Your task to perform on an android device: Open display settings Image 0: 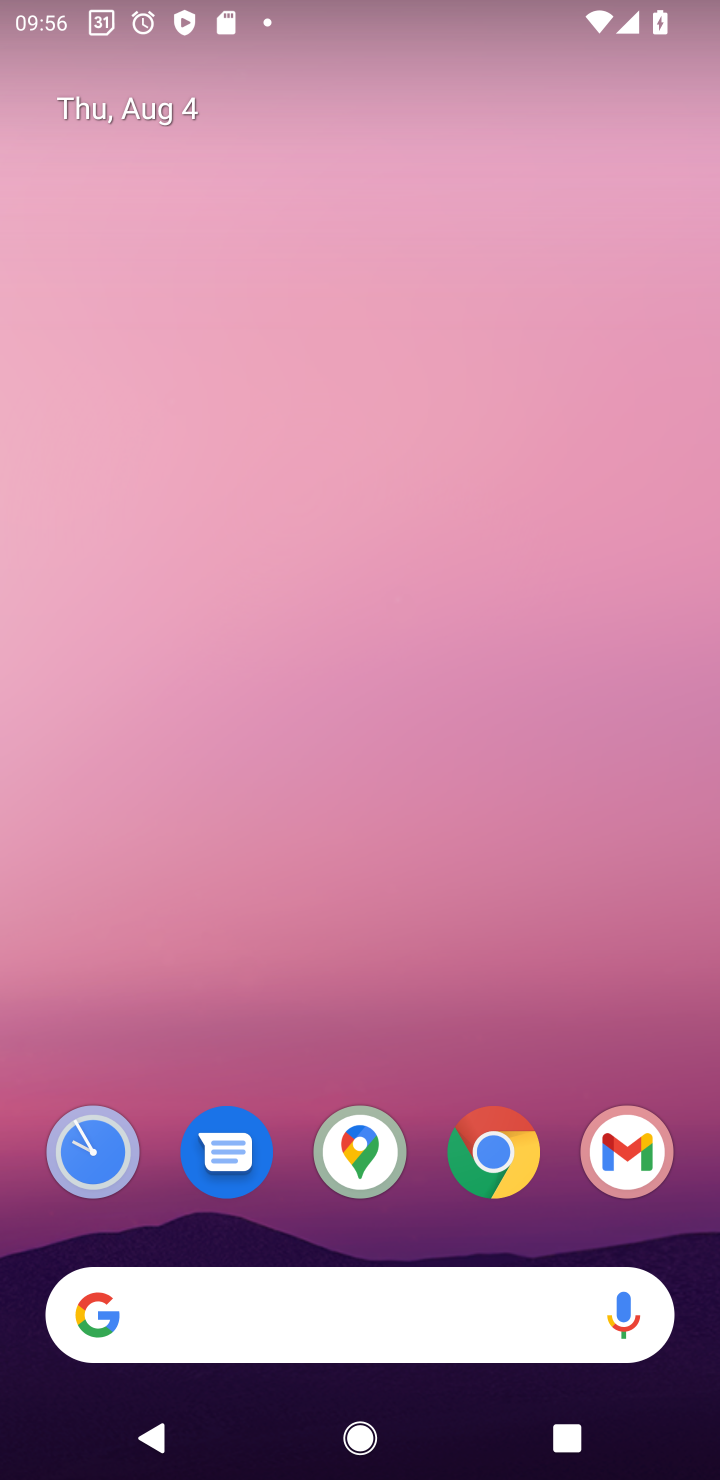
Step 0: drag from (52, 1154) to (431, 294)
Your task to perform on an android device: Open display settings Image 1: 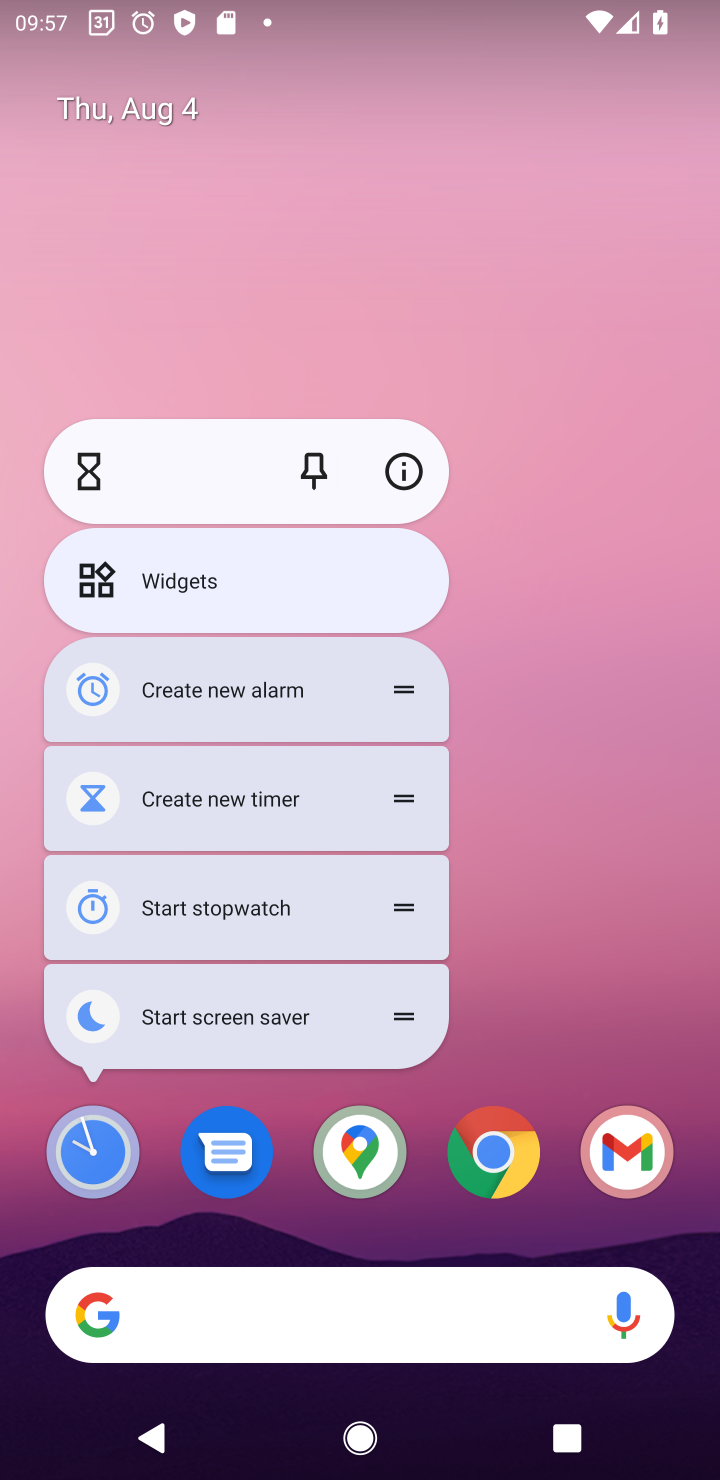
Step 1: click (187, 1322)
Your task to perform on an android device: Open display settings Image 2: 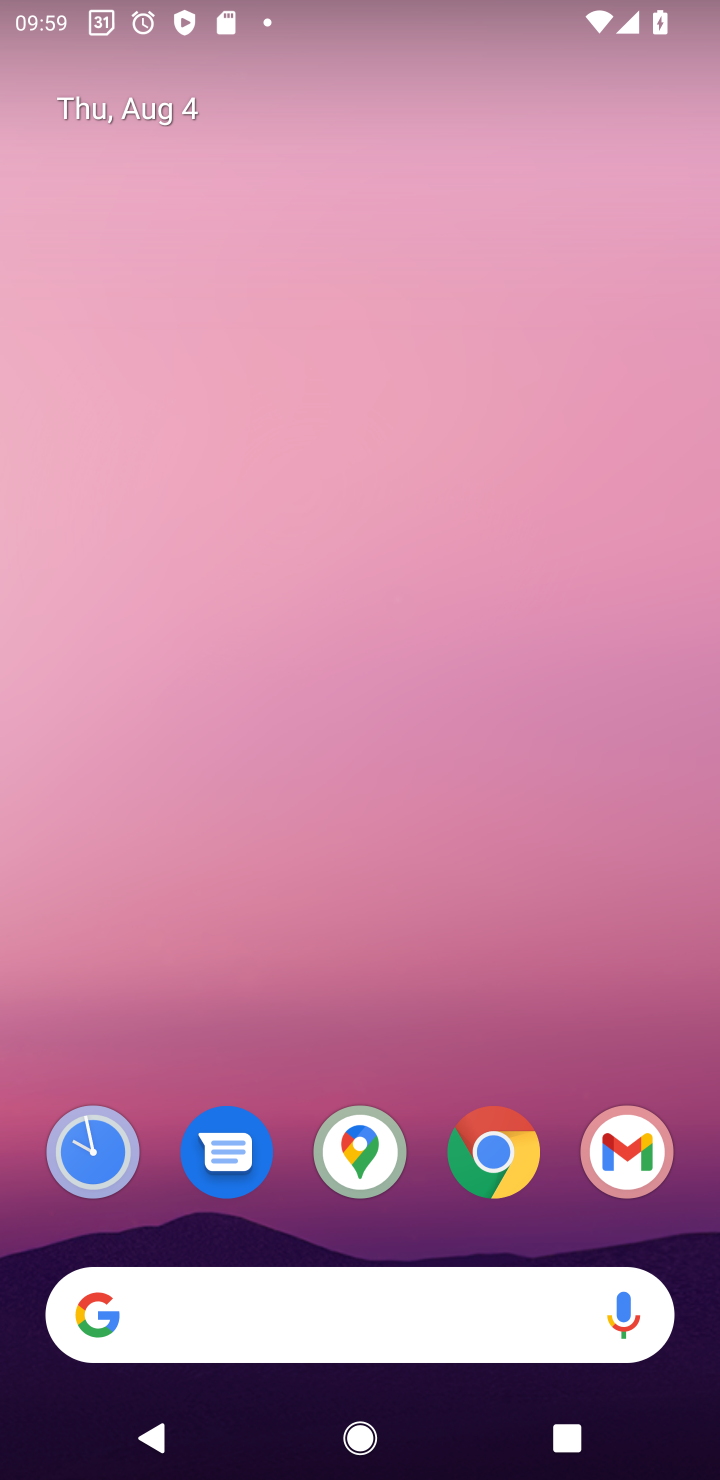
Step 2: drag from (157, 537) to (236, 85)
Your task to perform on an android device: Open display settings Image 3: 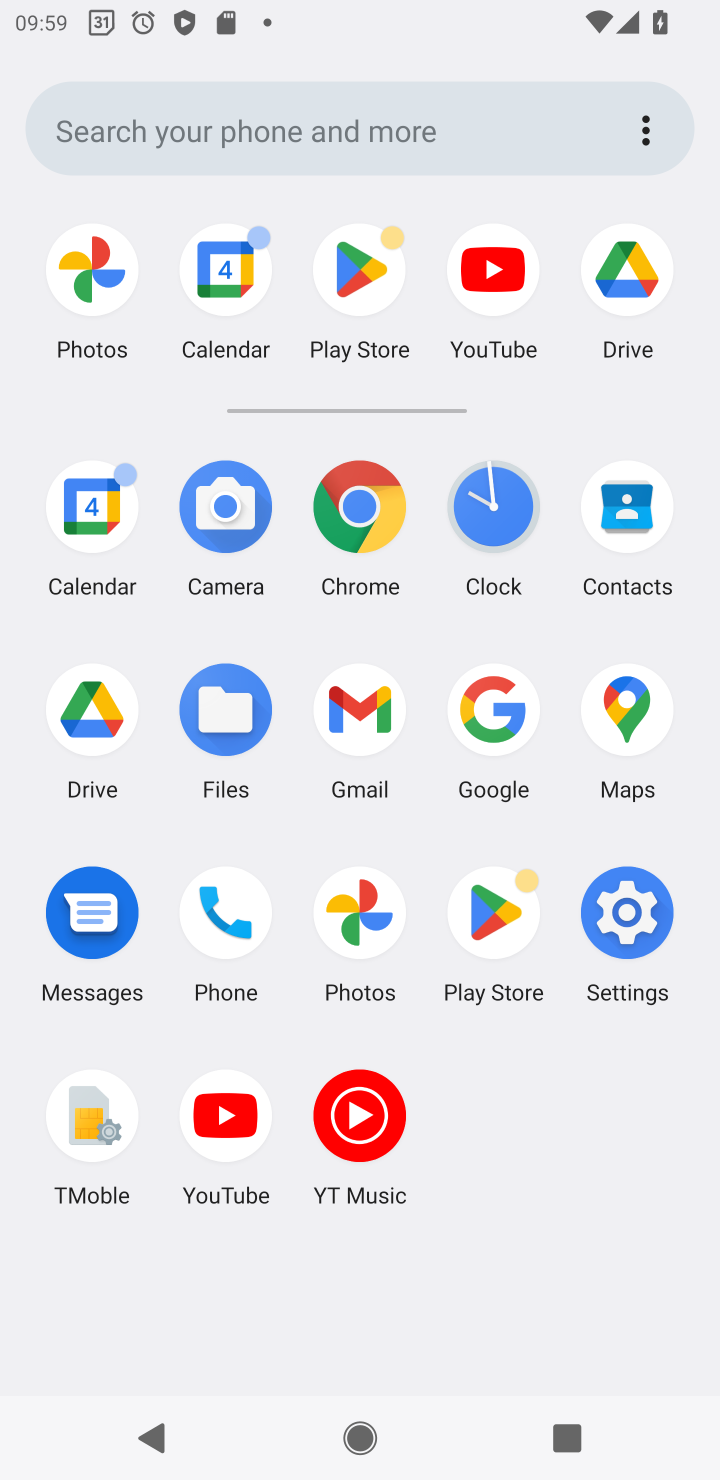
Step 3: click (639, 921)
Your task to perform on an android device: Open display settings Image 4: 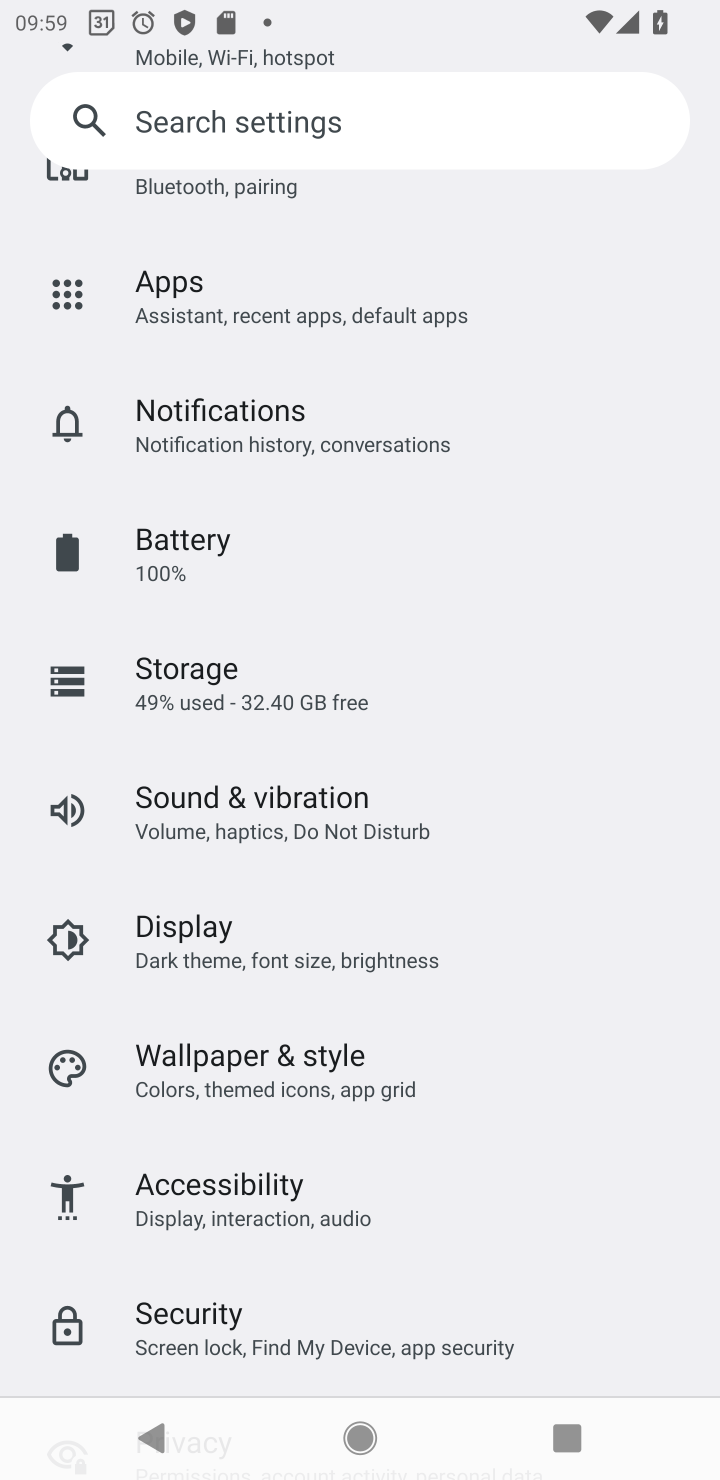
Step 4: task complete